Your task to perform on an android device: turn on notifications settings in the gmail app Image 0: 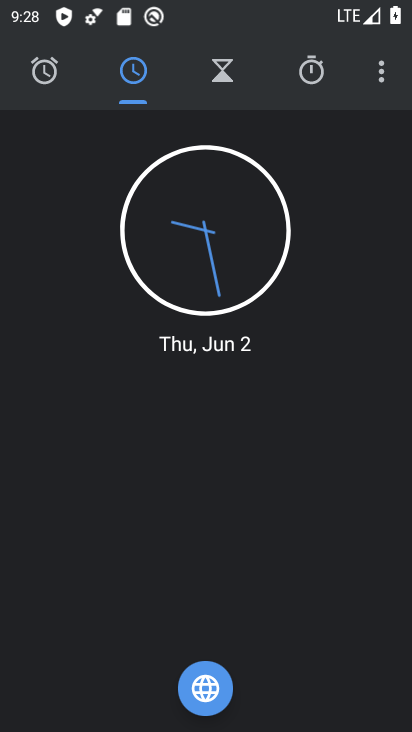
Step 0: press home button
Your task to perform on an android device: turn on notifications settings in the gmail app Image 1: 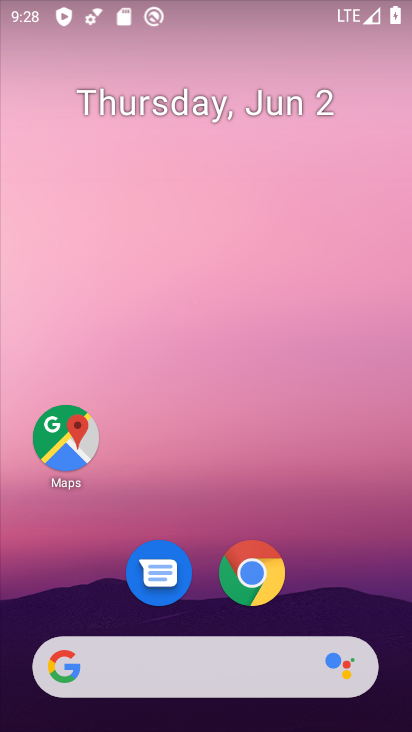
Step 1: drag from (321, 522) to (283, 120)
Your task to perform on an android device: turn on notifications settings in the gmail app Image 2: 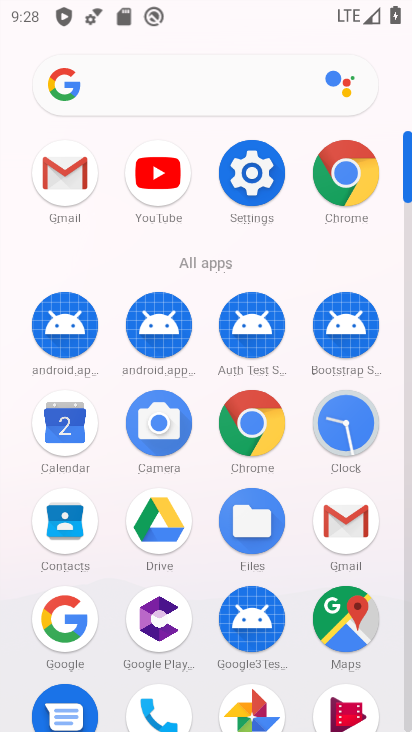
Step 2: click (54, 177)
Your task to perform on an android device: turn on notifications settings in the gmail app Image 3: 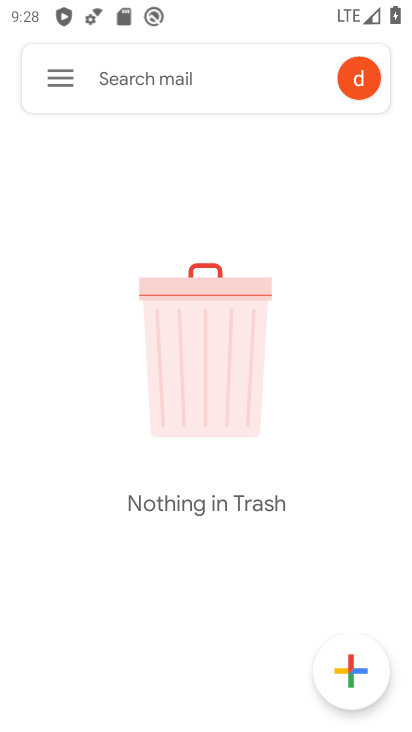
Step 3: click (36, 70)
Your task to perform on an android device: turn on notifications settings in the gmail app Image 4: 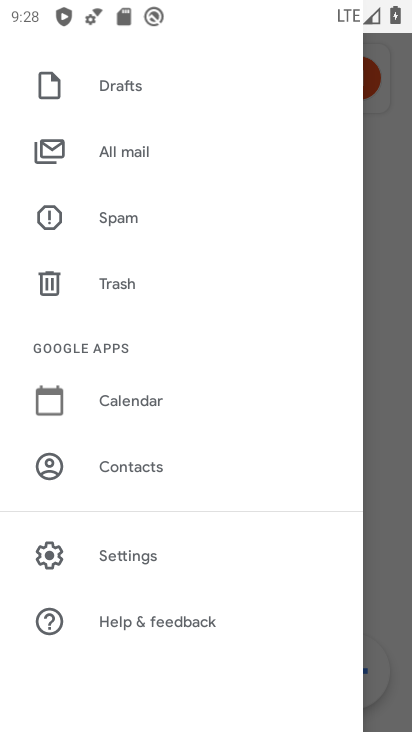
Step 4: click (142, 552)
Your task to perform on an android device: turn on notifications settings in the gmail app Image 5: 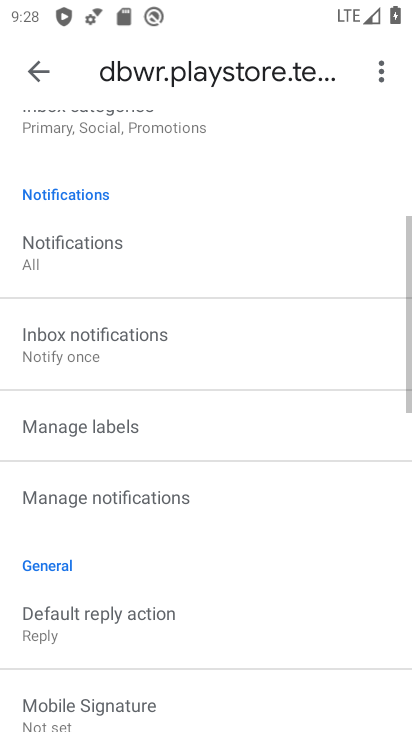
Step 5: drag from (191, 167) to (155, 609)
Your task to perform on an android device: turn on notifications settings in the gmail app Image 6: 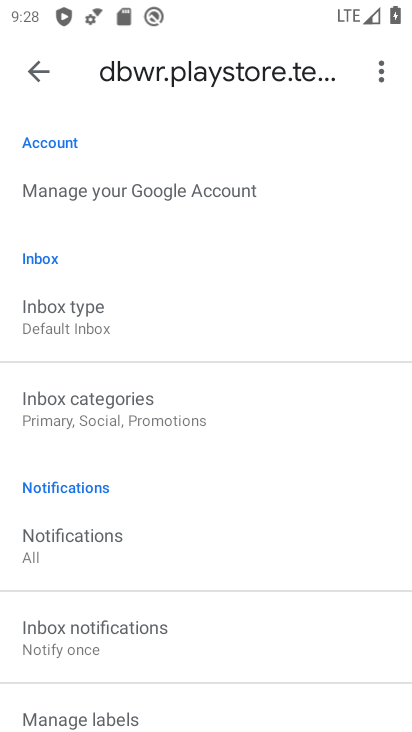
Step 6: drag from (143, 615) to (193, 318)
Your task to perform on an android device: turn on notifications settings in the gmail app Image 7: 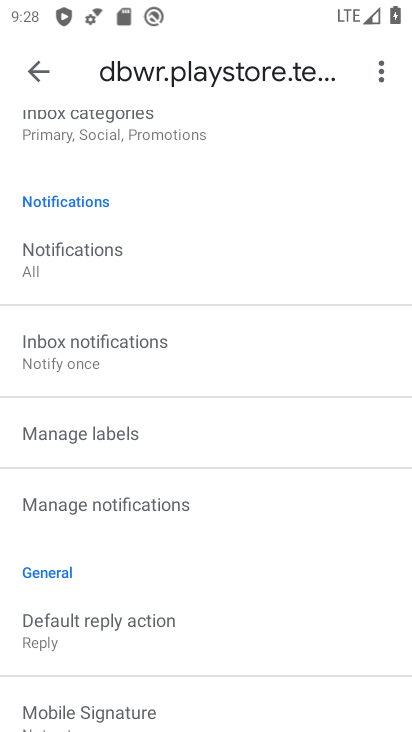
Step 7: click (111, 503)
Your task to perform on an android device: turn on notifications settings in the gmail app Image 8: 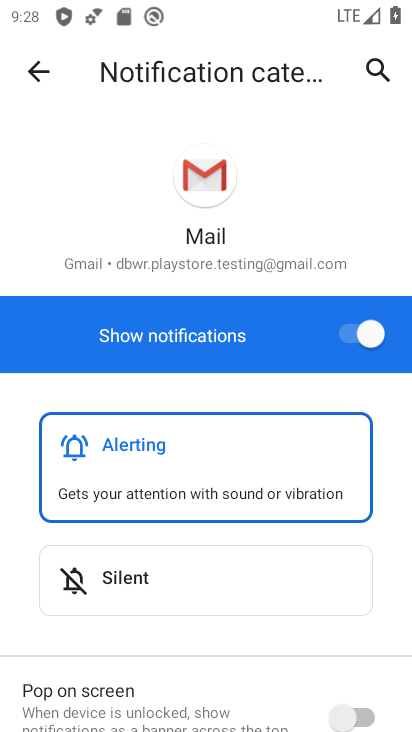
Step 8: task complete